Your task to perform on an android device: Search for "dell alienware" on walmart.com, select the first entry, add it to the cart, then select checkout. Image 0: 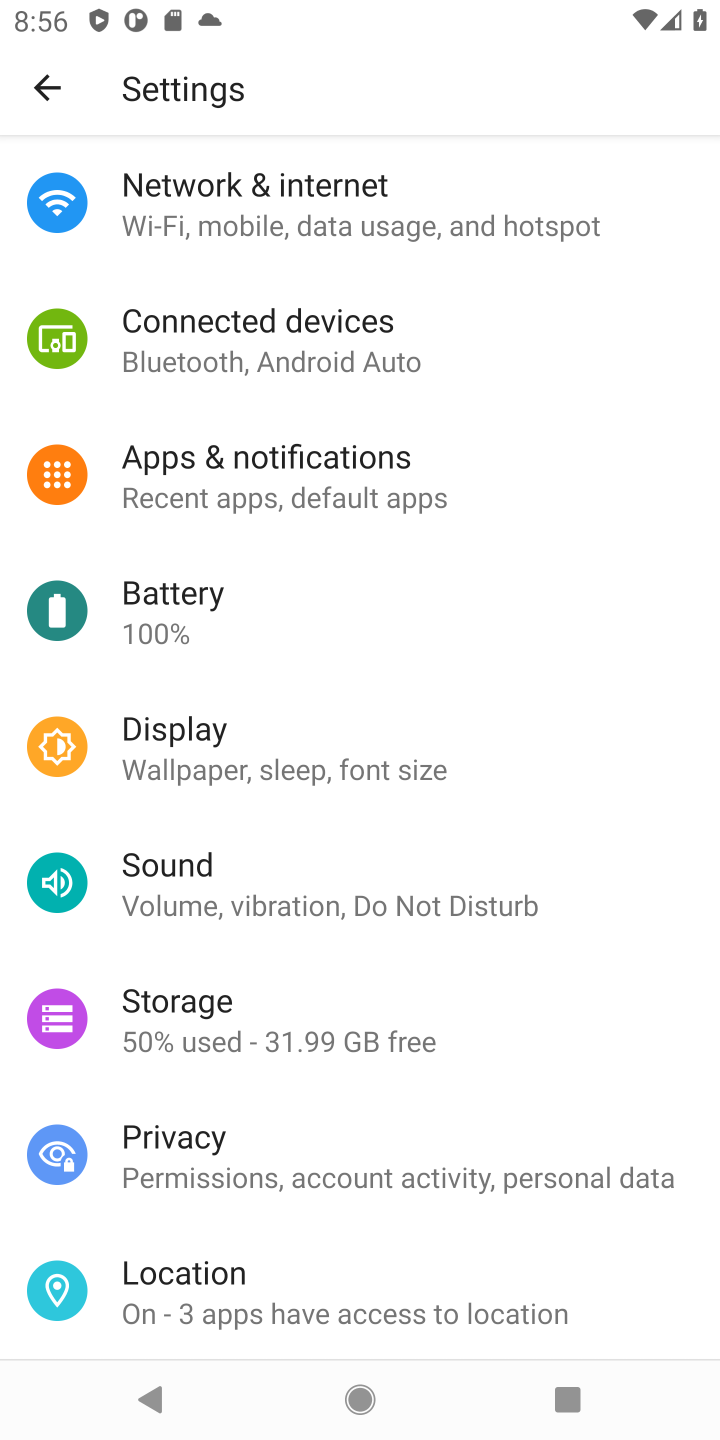
Step 0: press home button
Your task to perform on an android device: Search for "dell alienware" on walmart.com, select the first entry, add it to the cart, then select checkout. Image 1: 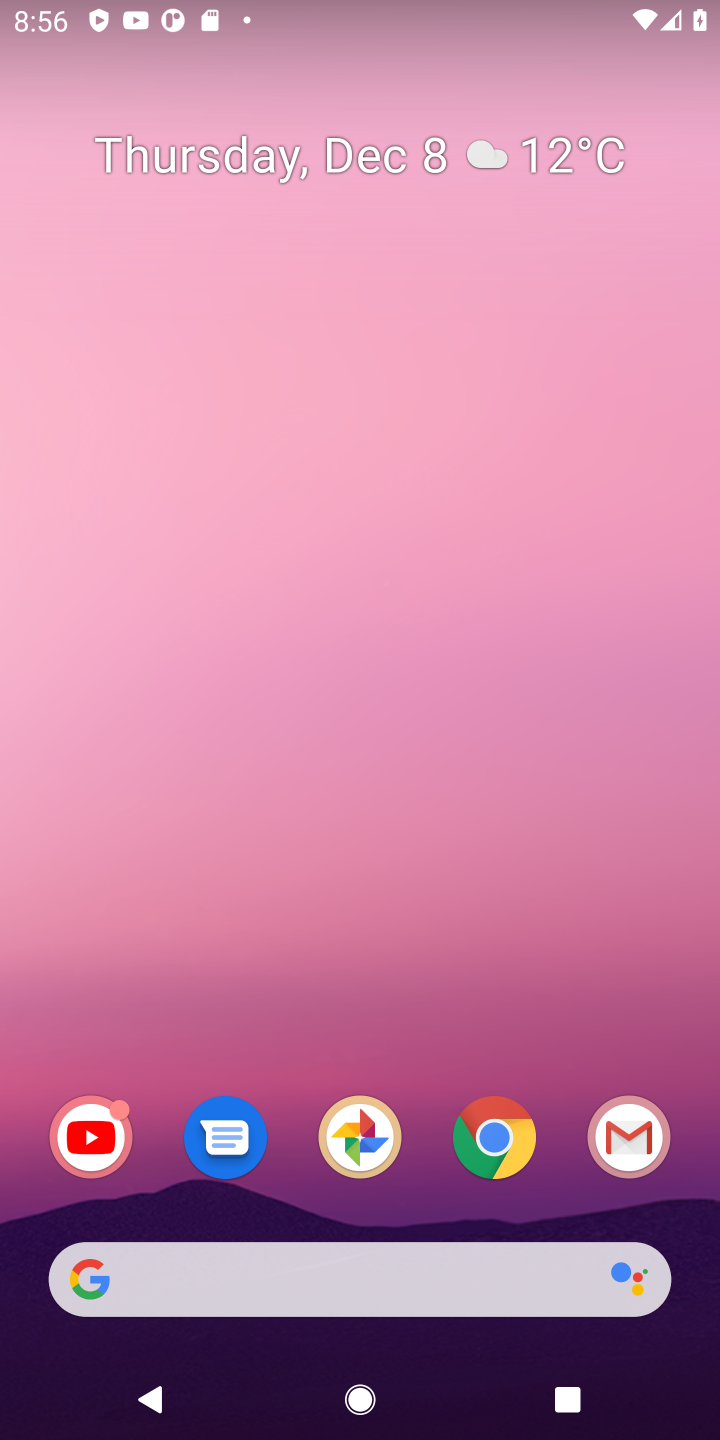
Step 1: click (517, 1130)
Your task to perform on an android device: Search for "dell alienware" on walmart.com, select the first entry, add it to the cart, then select checkout. Image 2: 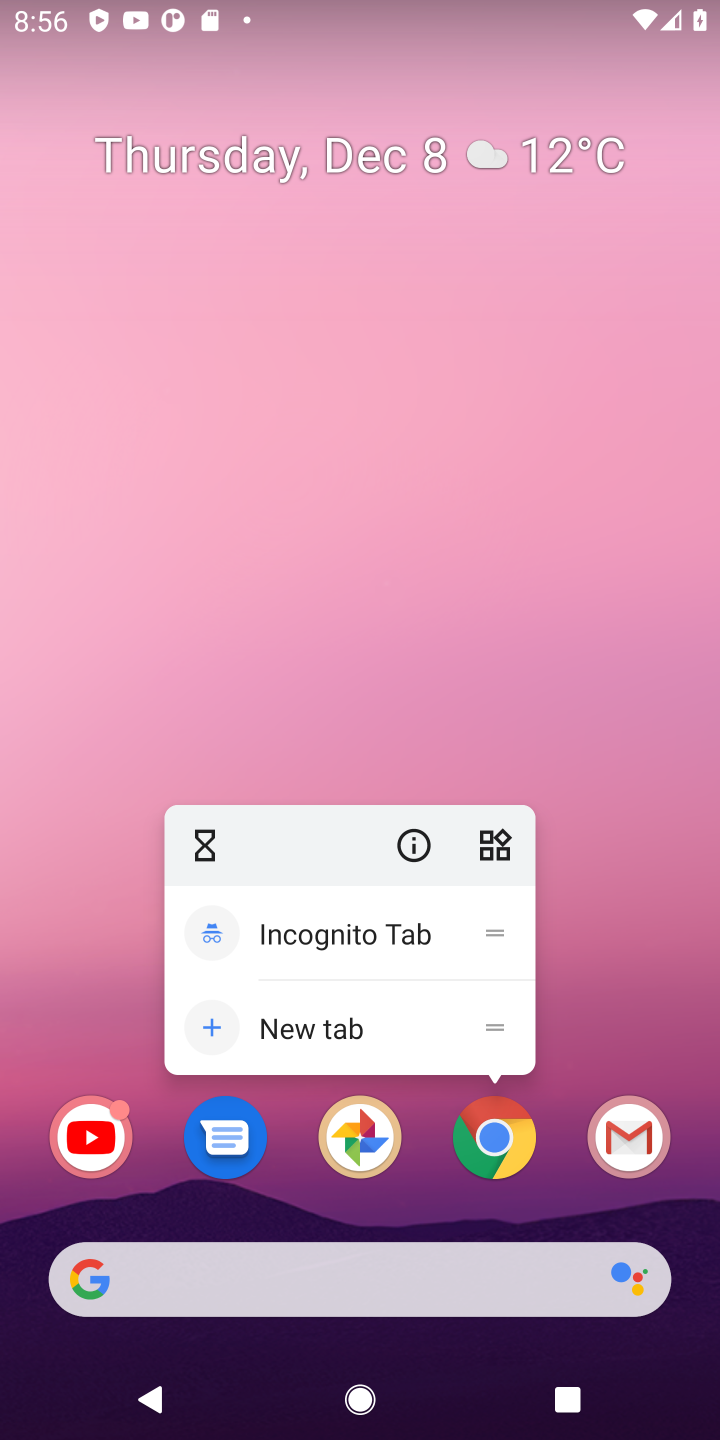
Step 2: click (495, 1118)
Your task to perform on an android device: Search for "dell alienware" on walmart.com, select the first entry, add it to the cart, then select checkout. Image 3: 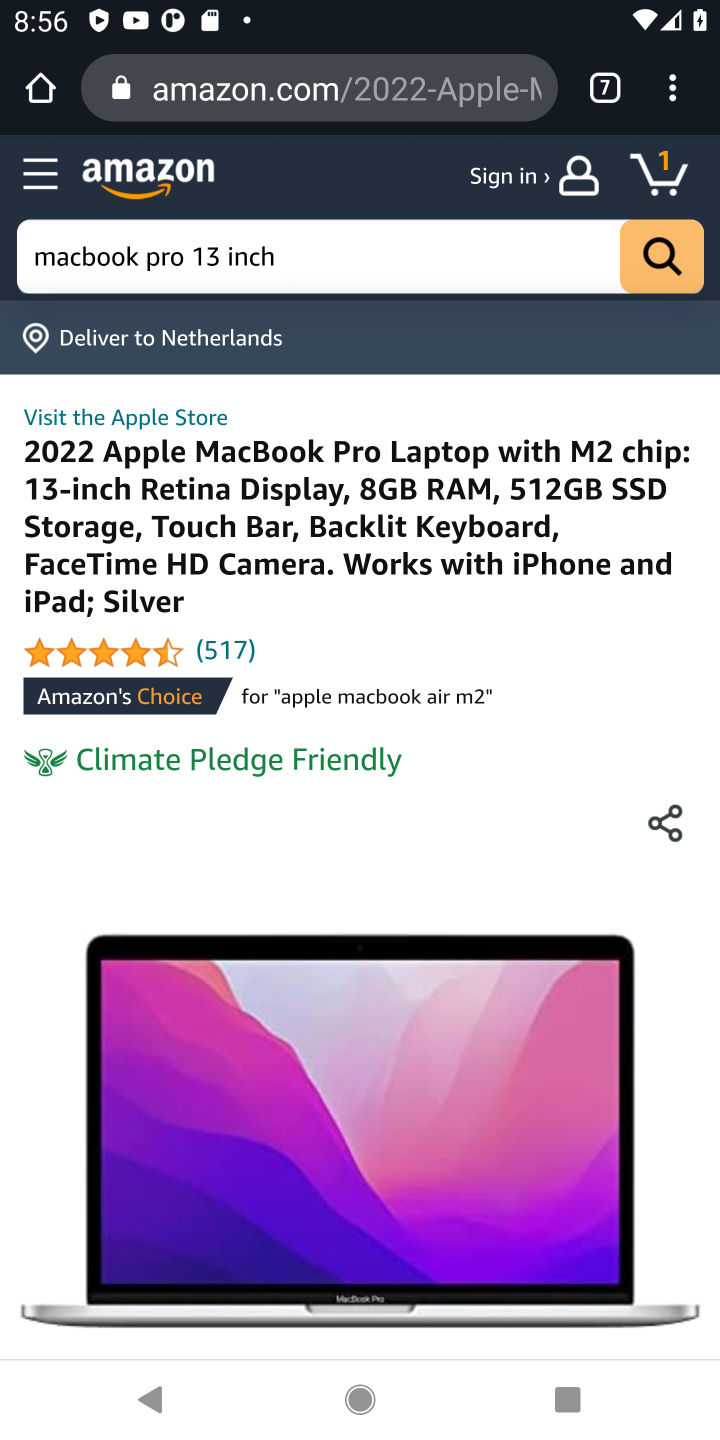
Step 3: click (610, 94)
Your task to perform on an android device: Search for "dell alienware" on walmart.com, select the first entry, add it to the cart, then select checkout. Image 4: 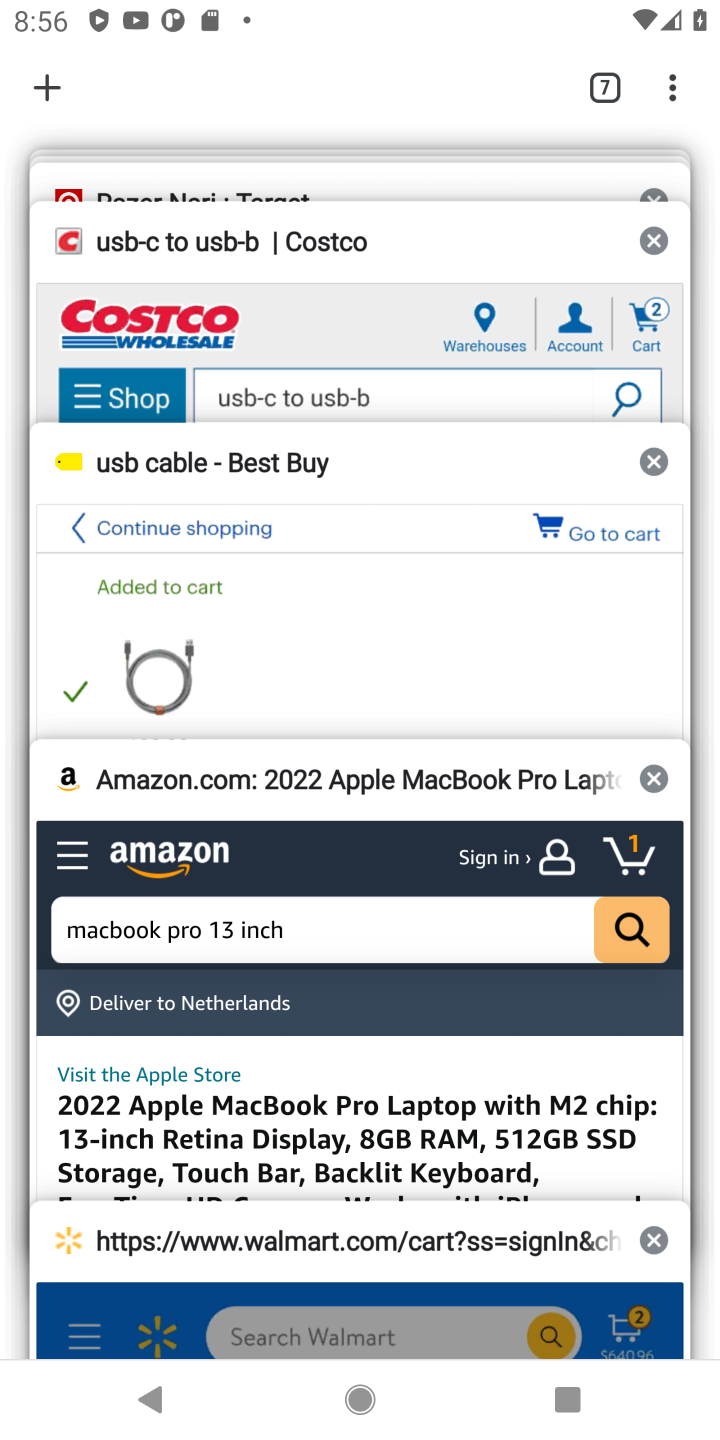
Step 4: click (374, 1272)
Your task to perform on an android device: Search for "dell alienware" on walmart.com, select the first entry, add it to the cart, then select checkout. Image 5: 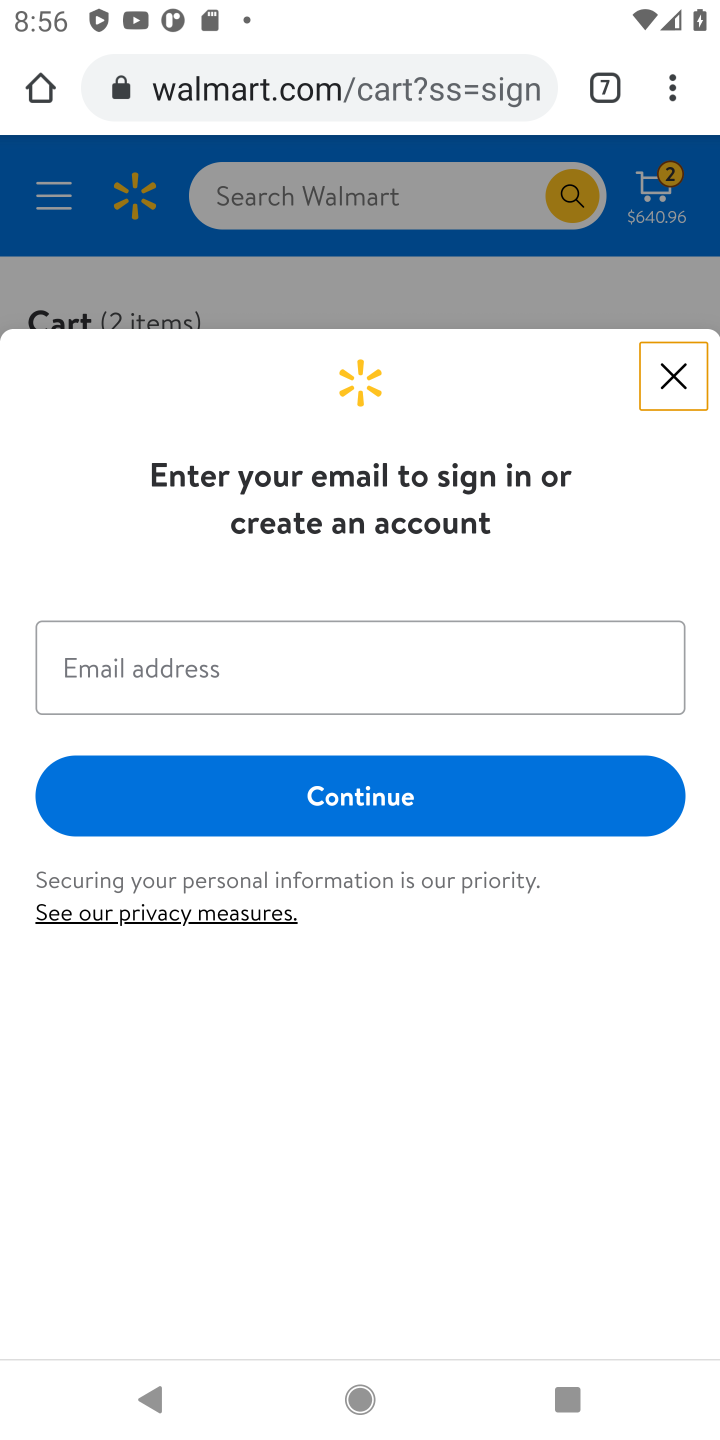
Step 5: click (655, 385)
Your task to perform on an android device: Search for "dell alienware" on walmart.com, select the first entry, add it to the cart, then select checkout. Image 6: 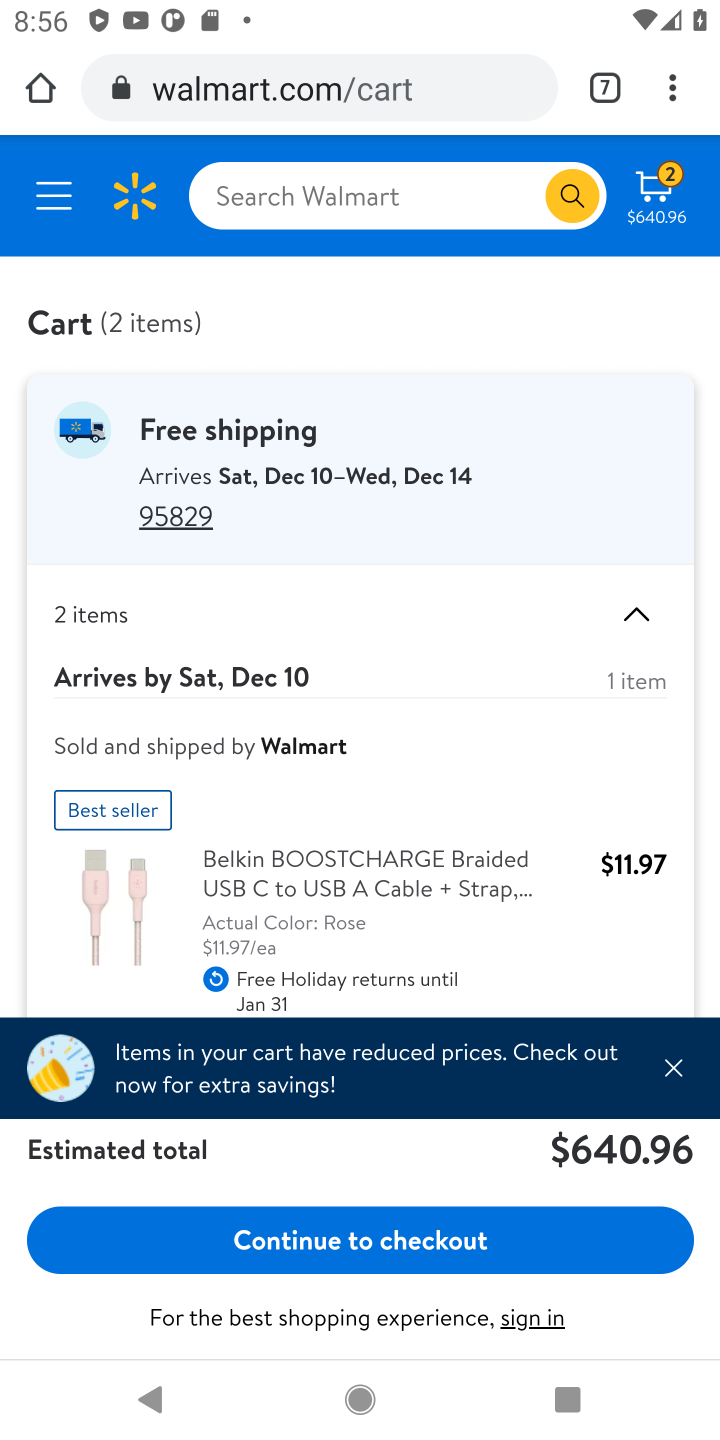
Step 6: click (441, 214)
Your task to perform on an android device: Search for "dell alienware" on walmart.com, select the first entry, add it to the cart, then select checkout. Image 7: 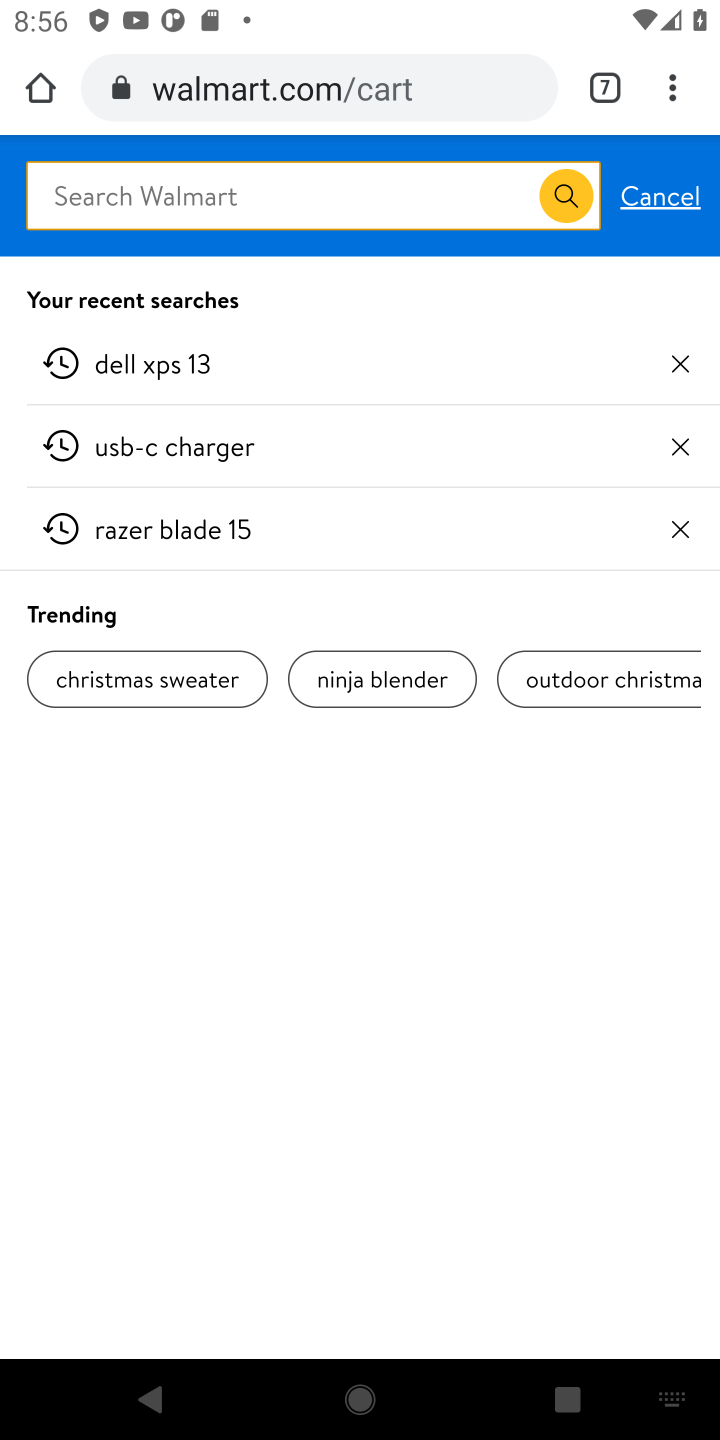
Step 7: type "dell alienware"
Your task to perform on an android device: Search for "dell alienware" on walmart.com, select the first entry, add it to the cart, then select checkout. Image 8: 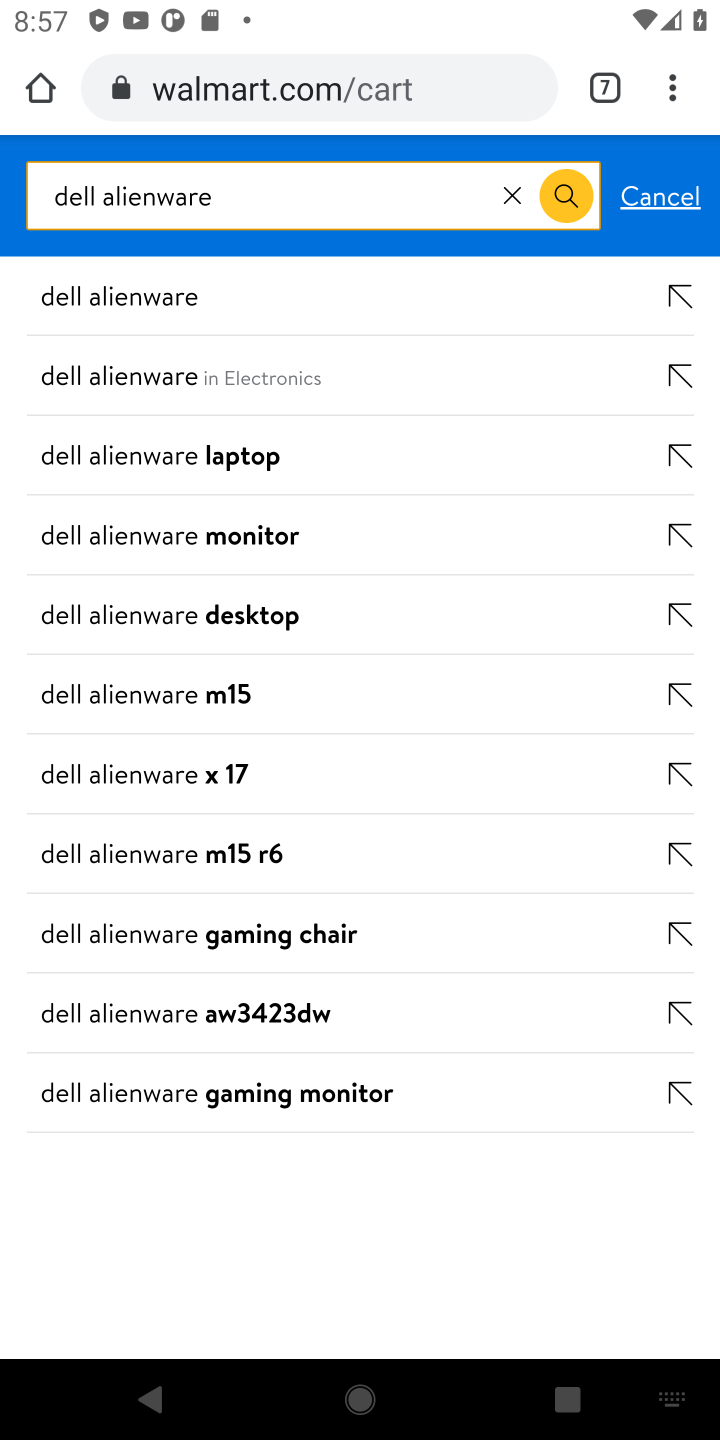
Step 8: click (137, 378)
Your task to perform on an android device: Search for "dell alienware" on walmart.com, select the first entry, add it to the cart, then select checkout. Image 9: 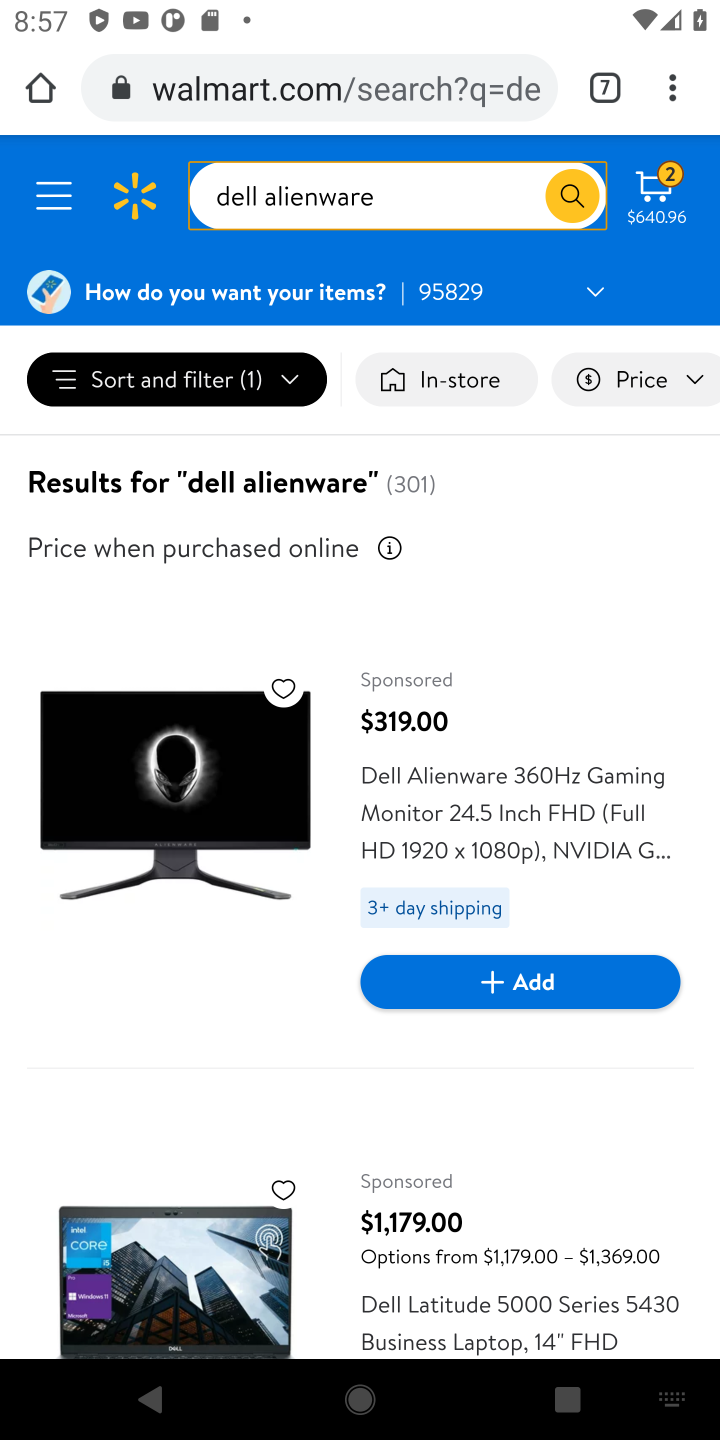
Step 9: click (541, 989)
Your task to perform on an android device: Search for "dell alienware" on walmart.com, select the first entry, add it to the cart, then select checkout. Image 10: 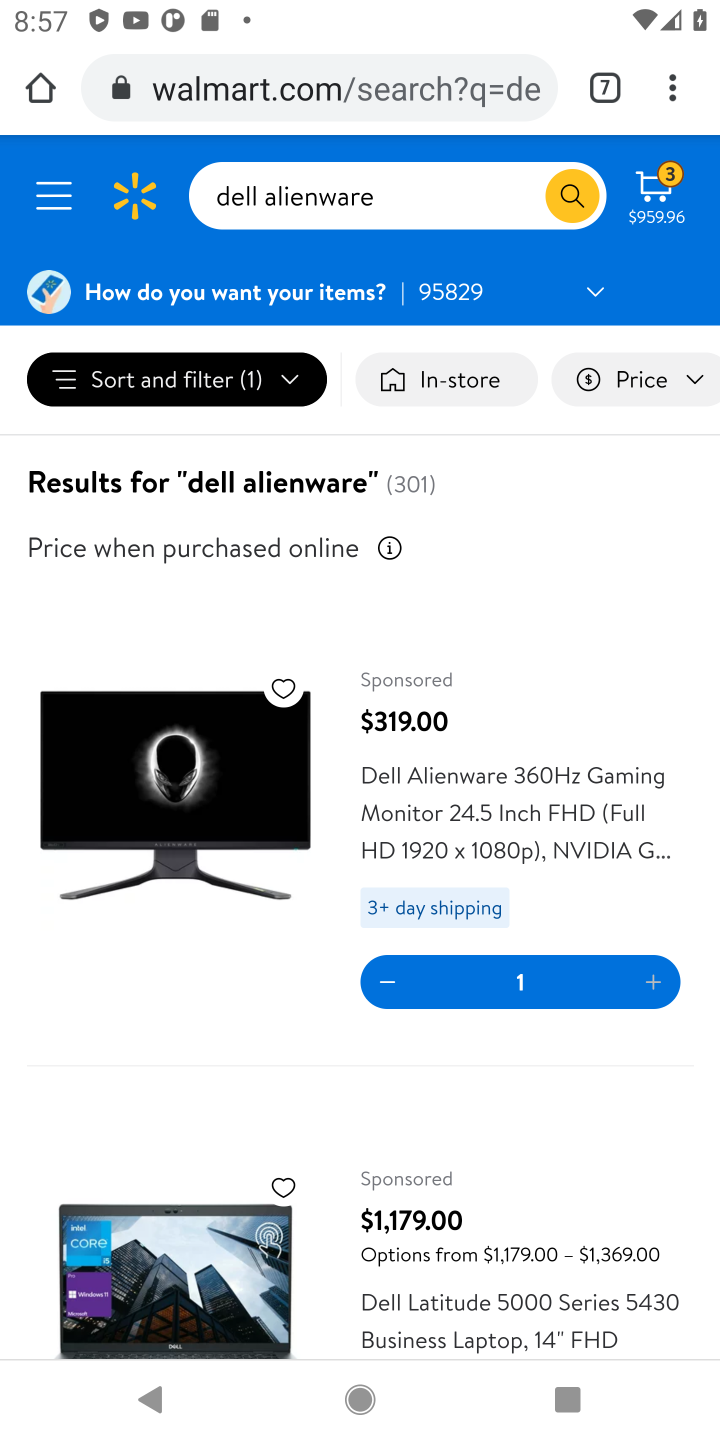
Step 10: click (661, 206)
Your task to perform on an android device: Search for "dell alienware" on walmart.com, select the first entry, add it to the cart, then select checkout. Image 11: 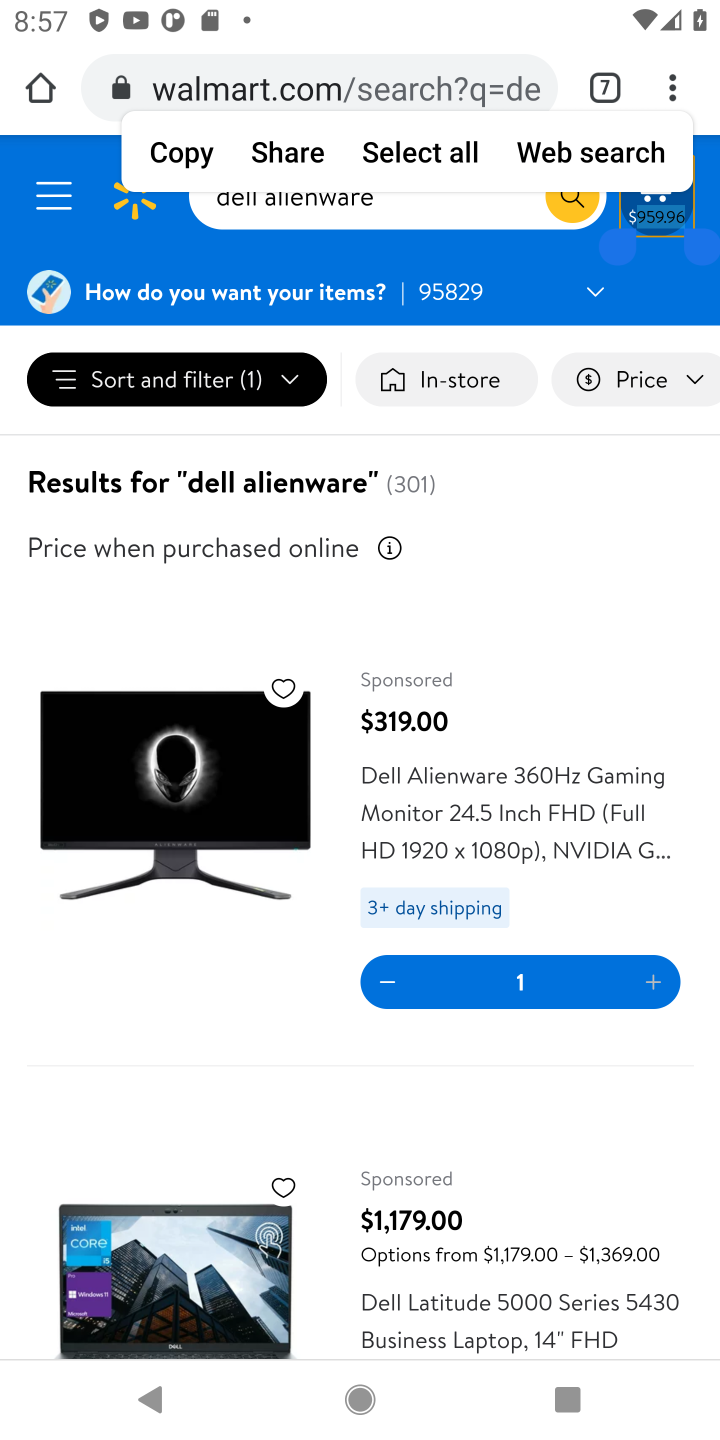
Step 11: click (672, 196)
Your task to perform on an android device: Search for "dell alienware" on walmart.com, select the first entry, add it to the cart, then select checkout. Image 12: 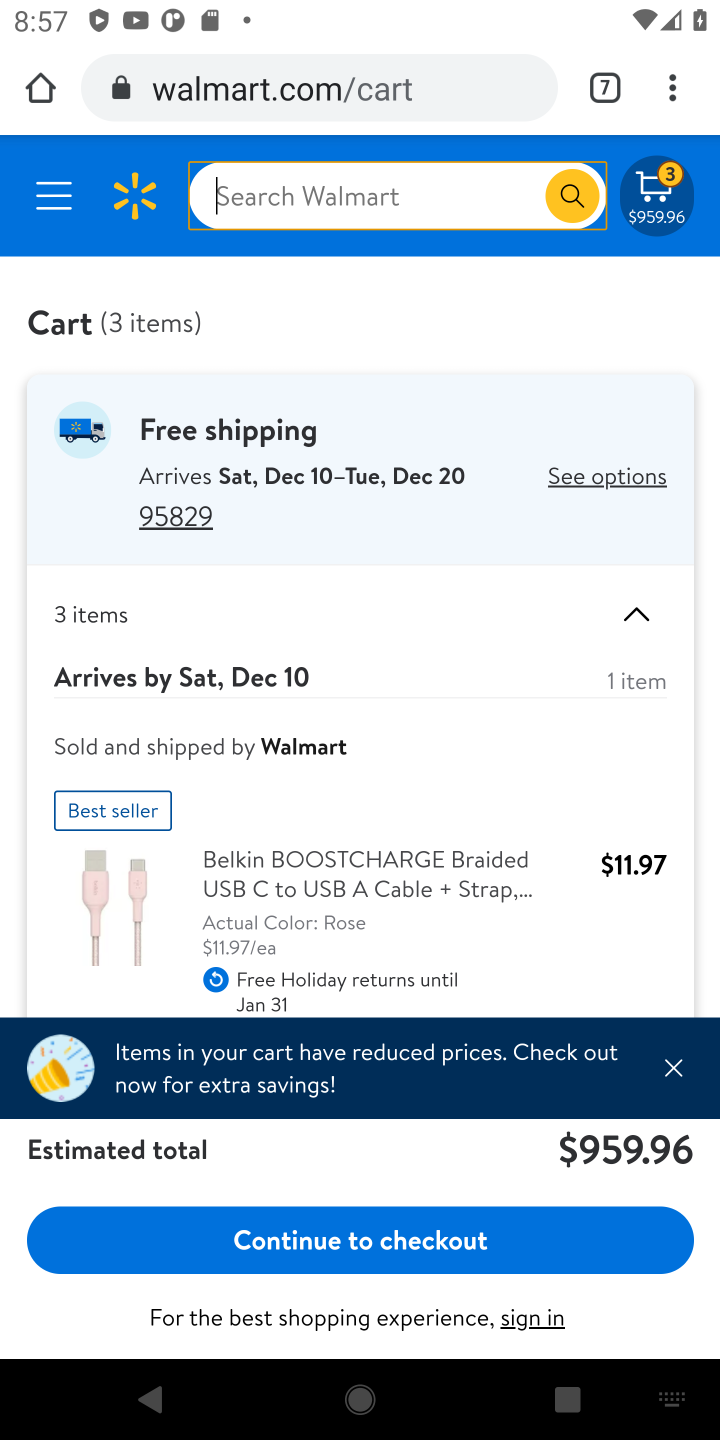
Step 12: click (470, 1217)
Your task to perform on an android device: Search for "dell alienware" on walmart.com, select the first entry, add it to the cart, then select checkout. Image 13: 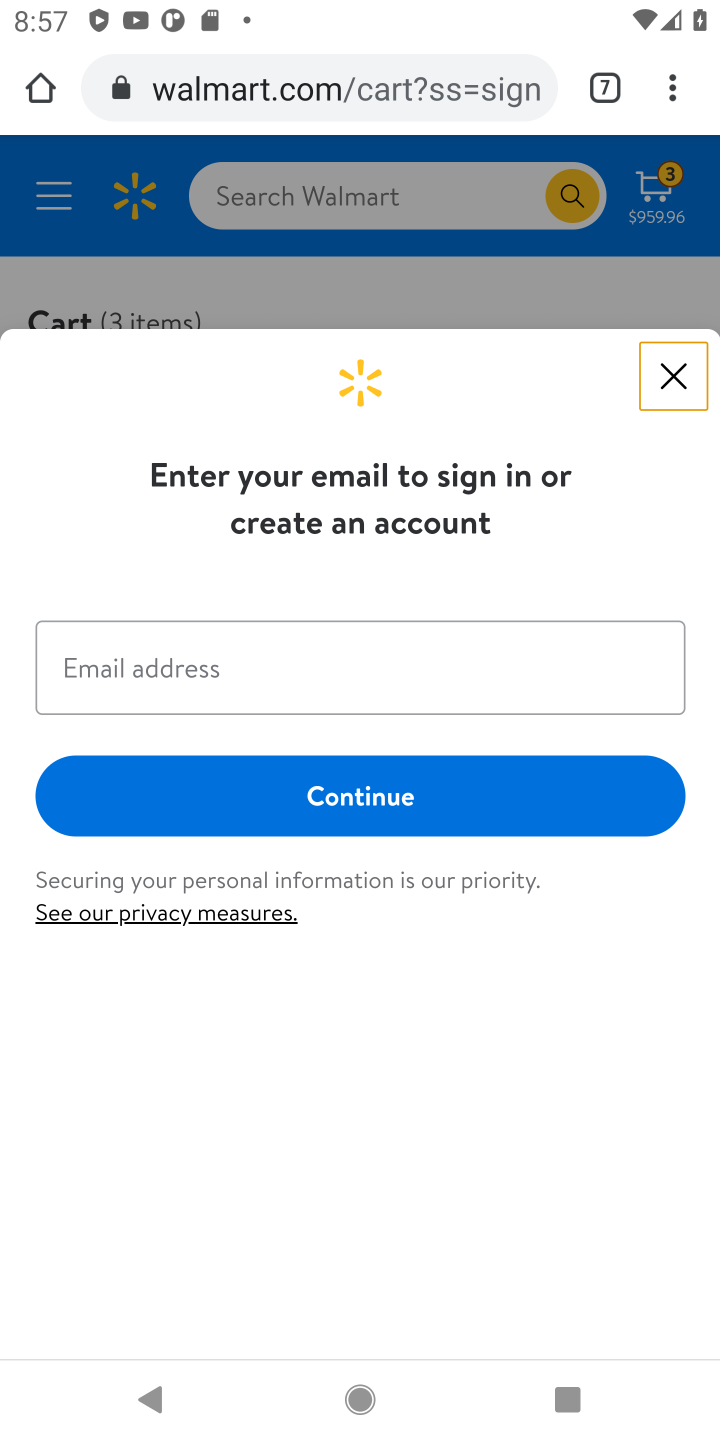
Step 13: task complete